Your task to perform on an android device: turn on location history Image 0: 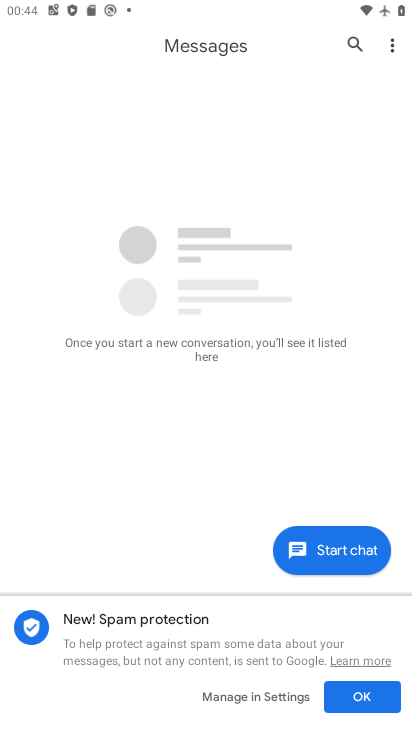
Step 0: press home button
Your task to perform on an android device: turn on location history Image 1: 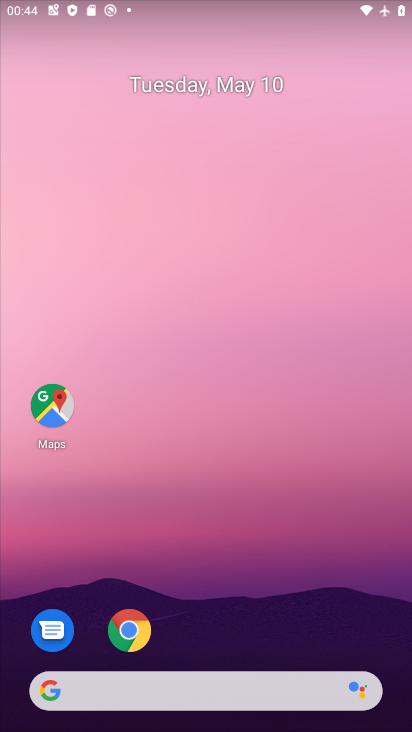
Step 1: drag from (210, 728) to (208, 338)
Your task to perform on an android device: turn on location history Image 2: 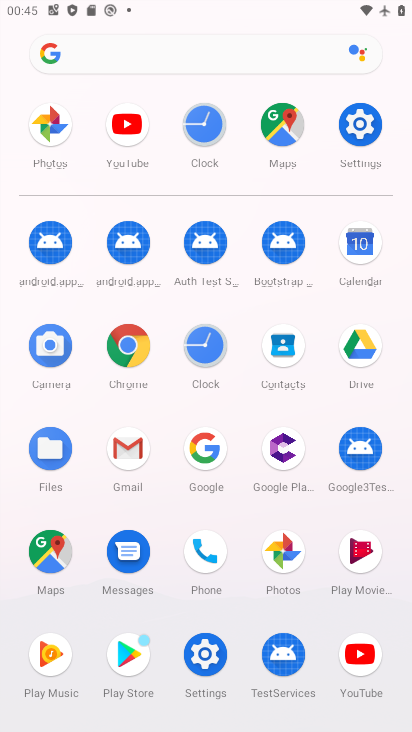
Step 2: click (366, 126)
Your task to perform on an android device: turn on location history Image 3: 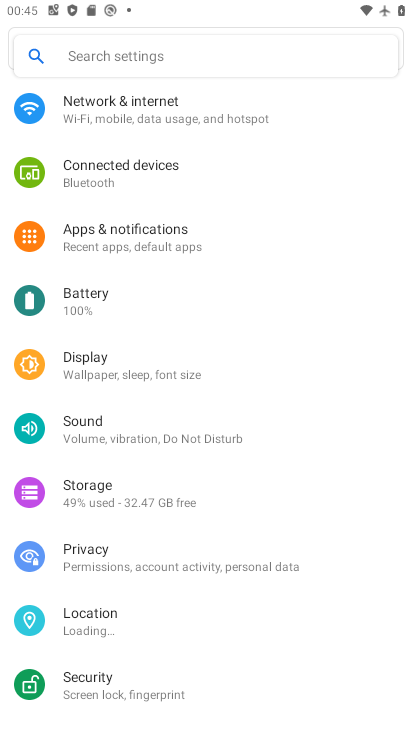
Step 3: click (91, 621)
Your task to perform on an android device: turn on location history Image 4: 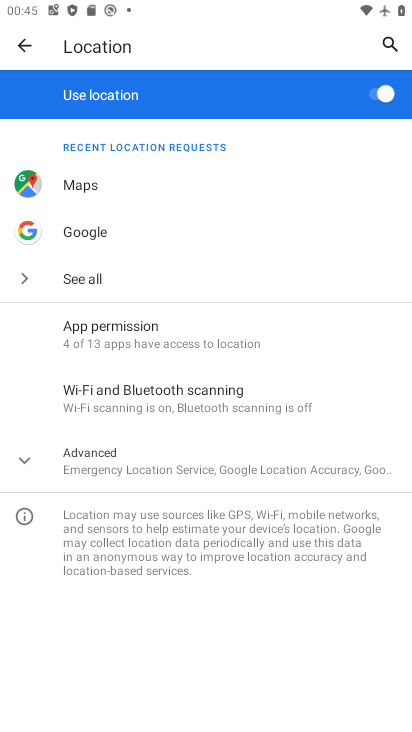
Step 4: click (97, 459)
Your task to perform on an android device: turn on location history Image 5: 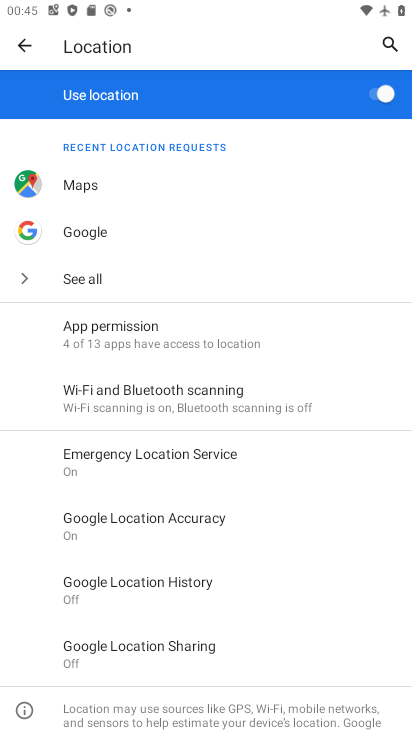
Step 5: click (149, 581)
Your task to perform on an android device: turn on location history Image 6: 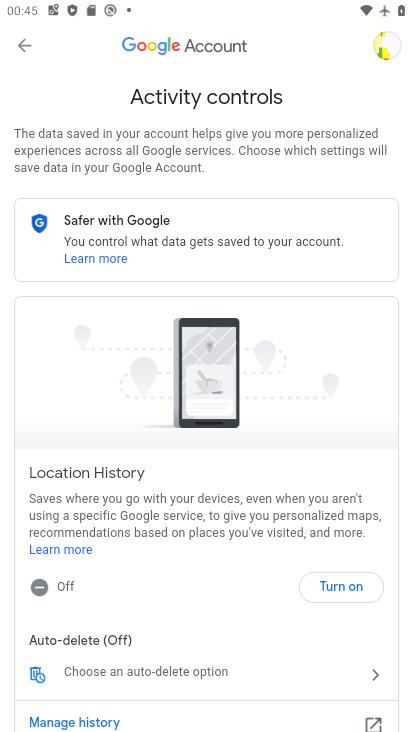
Step 6: drag from (258, 665) to (276, 526)
Your task to perform on an android device: turn on location history Image 7: 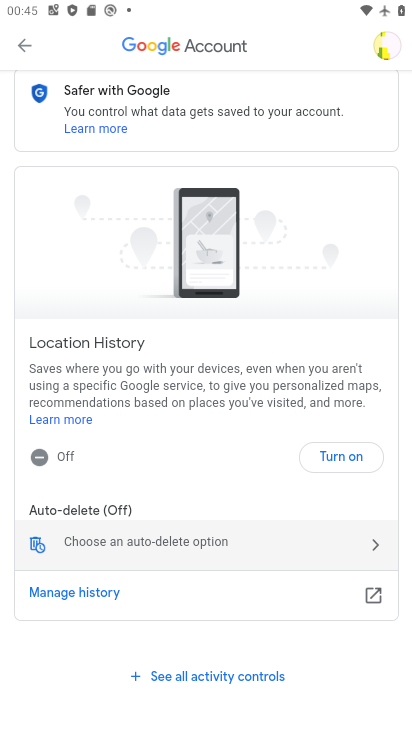
Step 7: click (335, 457)
Your task to perform on an android device: turn on location history Image 8: 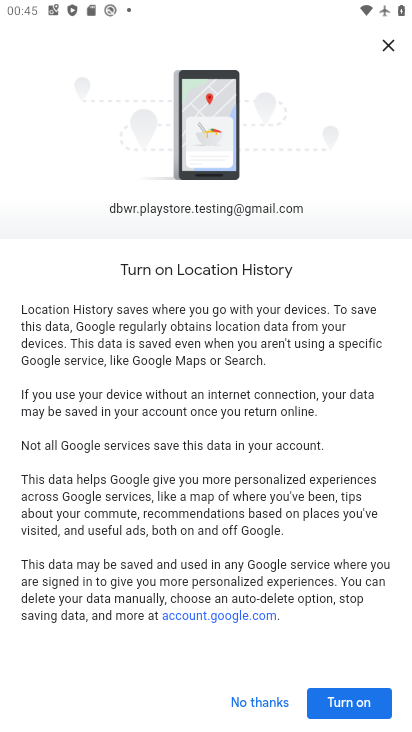
Step 8: click (350, 701)
Your task to perform on an android device: turn on location history Image 9: 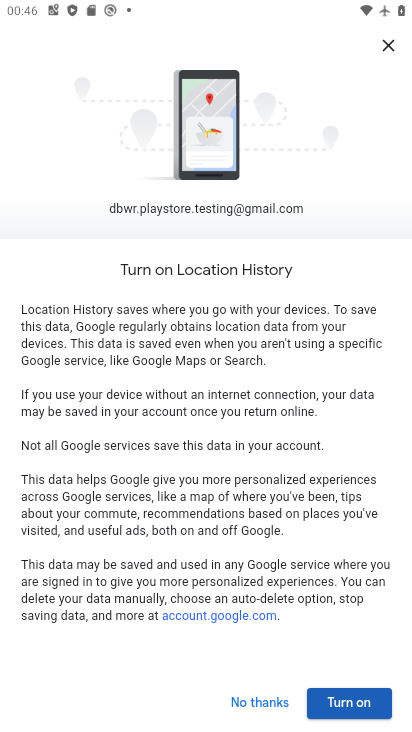
Step 9: click (347, 702)
Your task to perform on an android device: turn on location history Image 10: 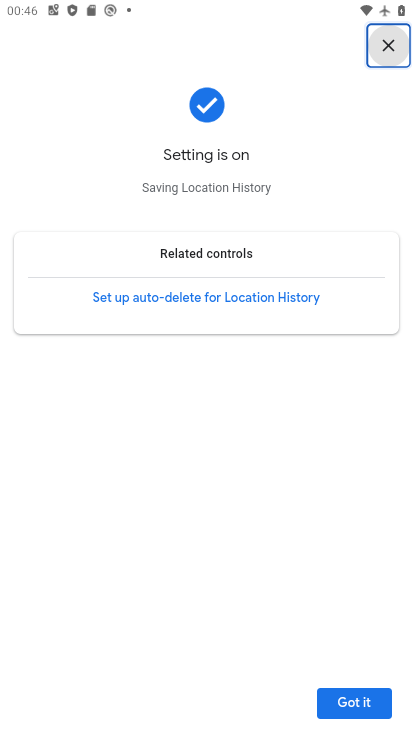
Step 10: task complete